Your task to perform on an android device: turn on wifi Image 0: 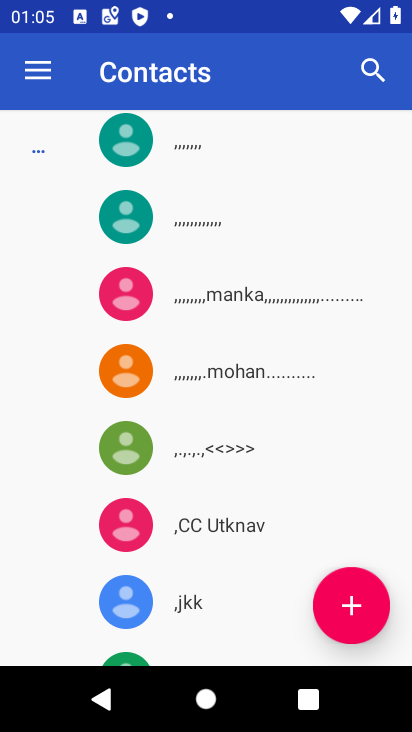
Step 0: press home button
Your task to perform on an android device: turn on wifi Image 1: 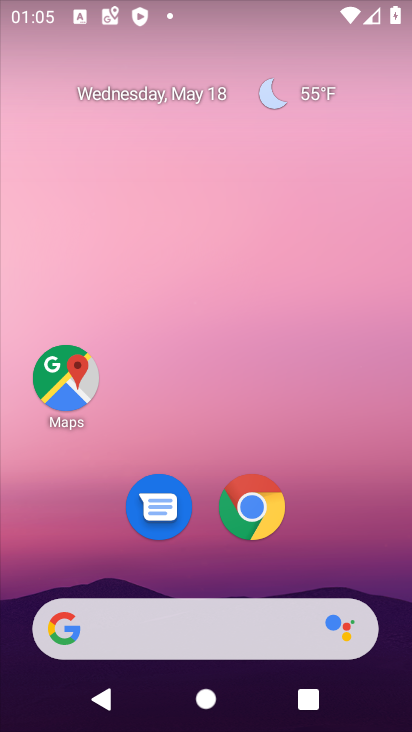
Step 1: drag from (395, 619) to (346, 99)
Your task to perform on an android device: turn on wifi Image 2: 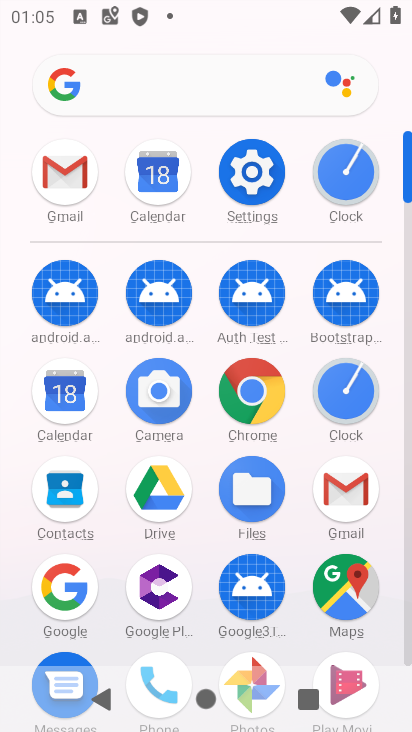
Step 2: click (408, 651)
Your task to perform on an android device: turn on wifi Image 3: 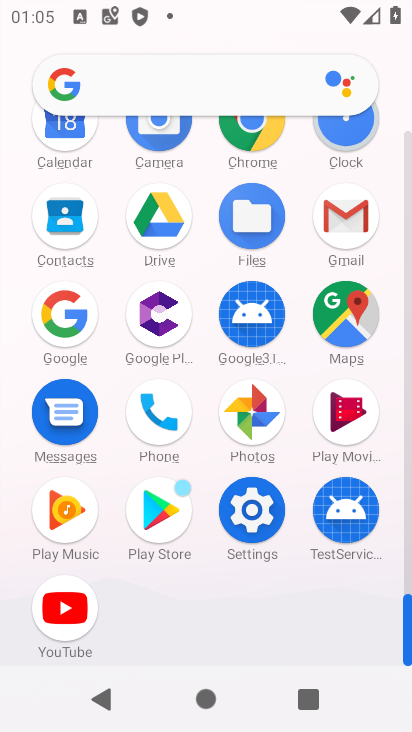
Step 3: click (253, 510)
Your task to perform on an android device: turn on wifi Image 4: 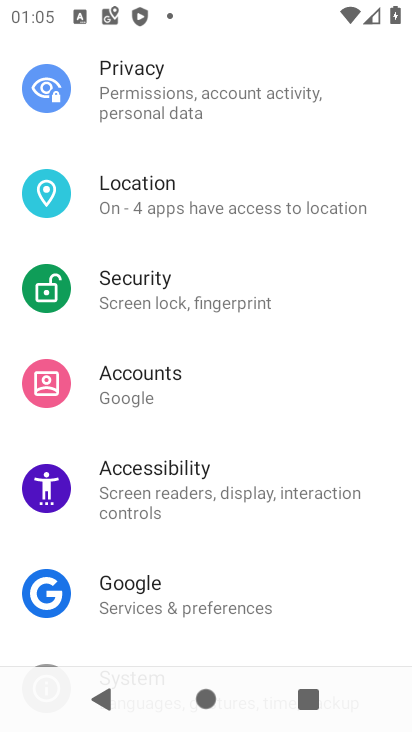
Step 4: drag from (288, 186) to (296, 391)
Your task to perform on an android device: turn on wifi Image 5: 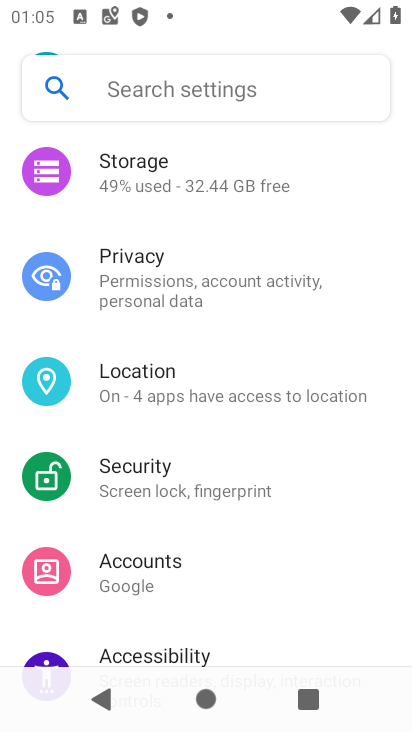
Step 5: drag from (318, 190) to (321, 500)
Your task to perform on an android device: turn on wifi Image 6: 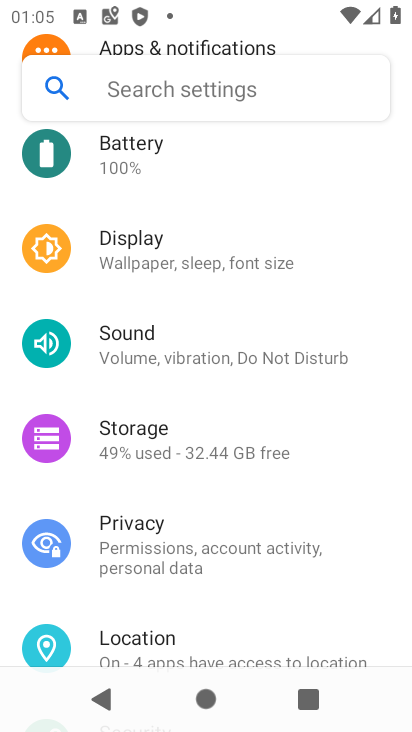
Step 6: drag from (328, 213) to (329, 466)
Your task to perform on an android device: turn on wifi Image 7: 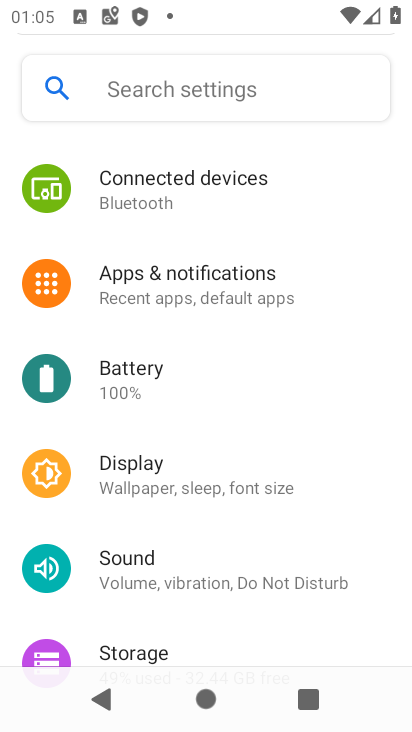
Step 7: drag from (351, 220) to (340, 440)
Your task to perform on an android device: turn on wifi Image 8: 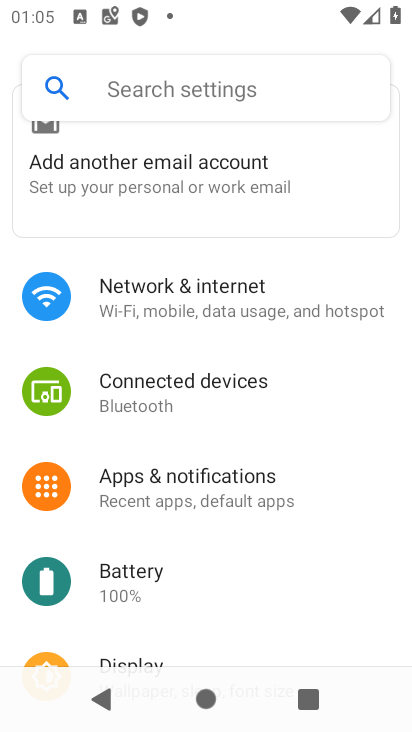
Step 8: click (183, 298)
Your task to perform on an android device: turn on wifi Image 9: 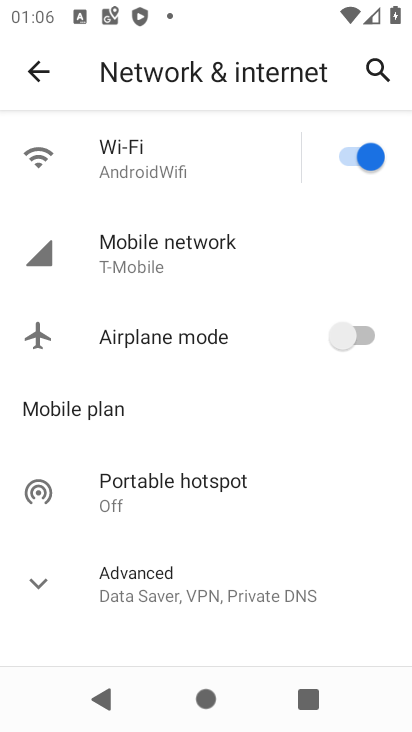
Step 9: task complete